Your task to perform on an android device: When is my next meeting? Image 0: 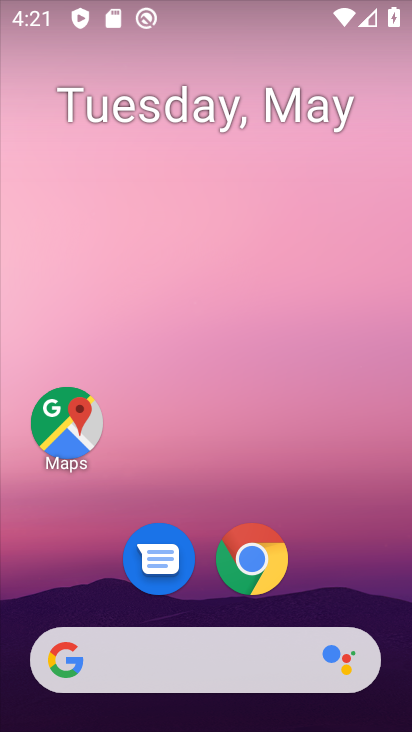
Step 0: drag from (359, 590) to (345, 123)
Your task to perform on an android device: When is my next meeting? Image 1: 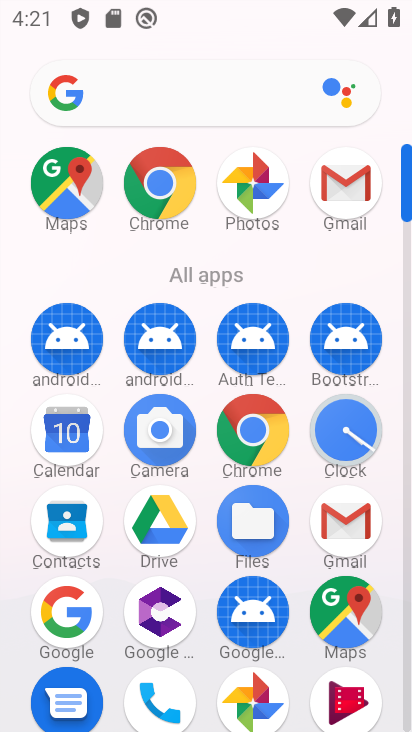
Step 1: click (84, 449)
Your task to perform on an android device: When is my next meeting? Image 2: 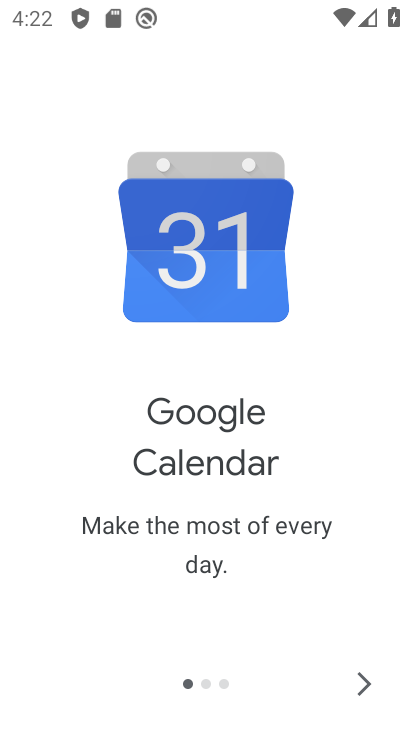
Step 2: click (360, 686)
Your task to perform on an android device: When is my next meeting? Image 3: 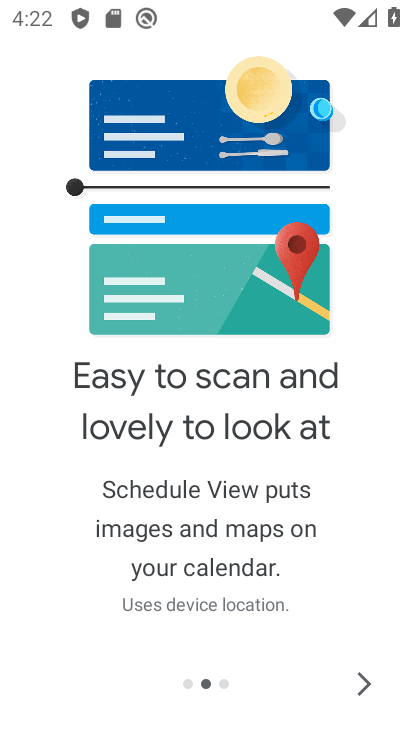
Step 3: click (360, 687)
Your task to perform on an android device: When is my next meeting? Image 4: 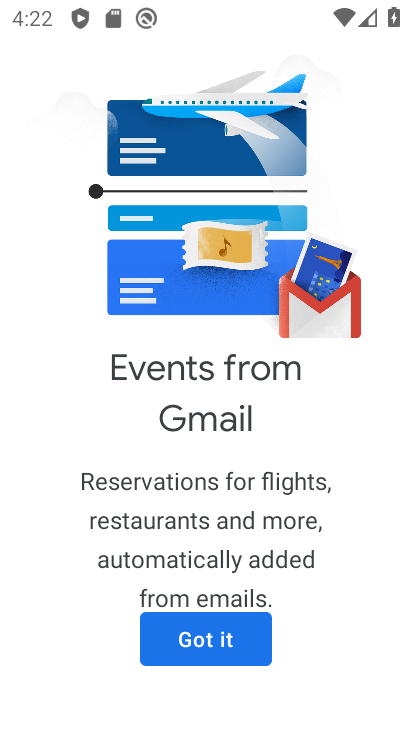
Step 4: click (242, 634)
Your task to perform on an android device: When is my next meeting? Image 5: 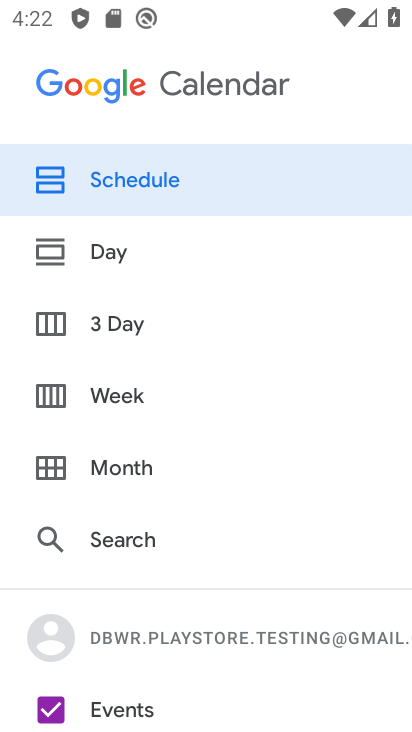
Step 5: click (268, 179)
Your task to perform on an android device: When is my next meeting? Image 6: 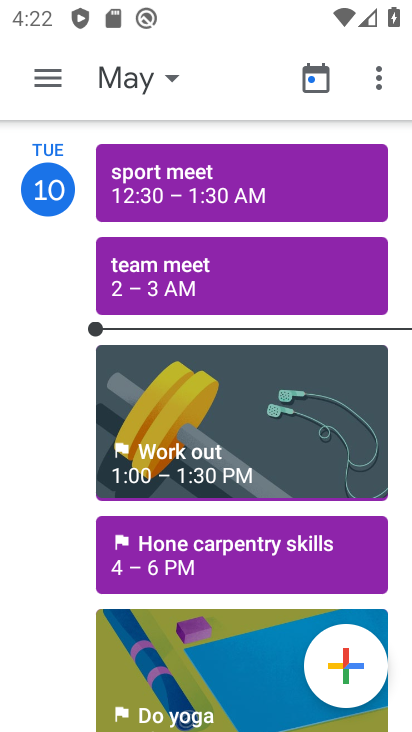
Step 6: task complete